Your task to perform on an android device: When is my next appointment? Image 0: 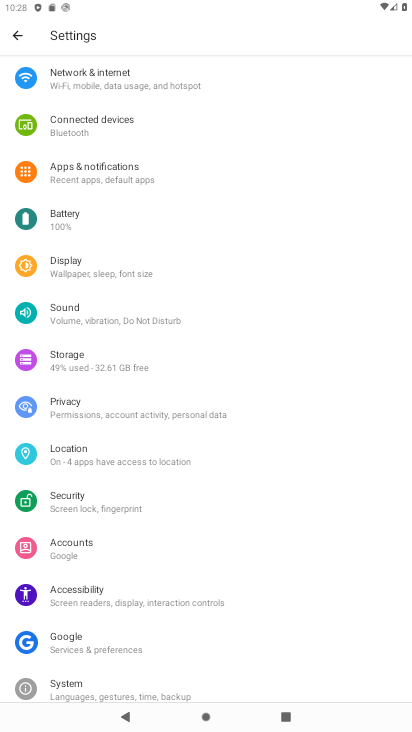
Step 0: click (13, 34)
Your task to perform on an android device: When is my next appointment? Image 1: 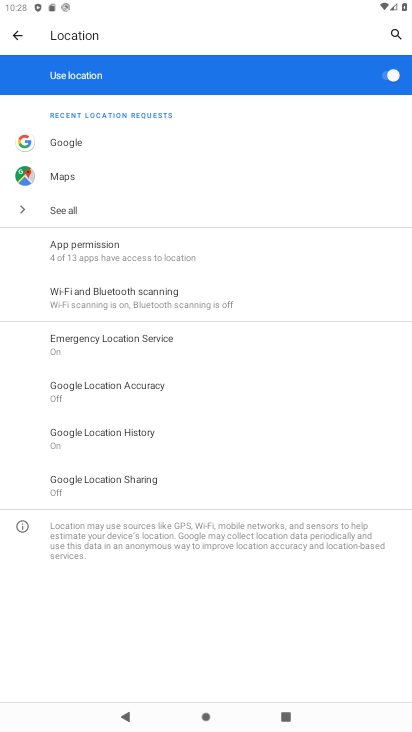
Step 1: click (24, 36)
Your task to perform on an android device: When is my next appointment? Image 2: 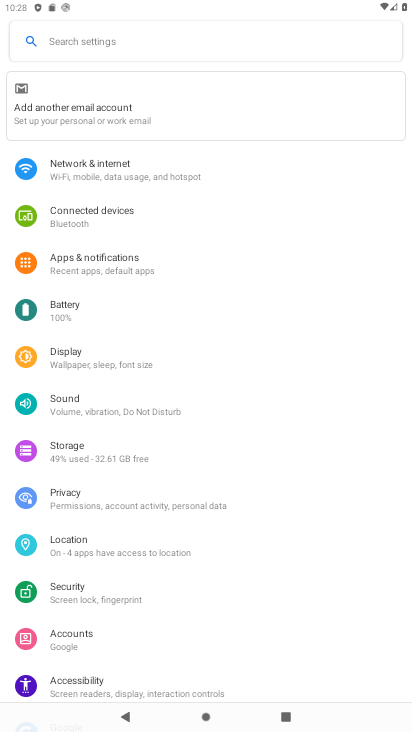
Step 2: press back button
Your task to perform on an android device: When is my next appointment? Image 3: 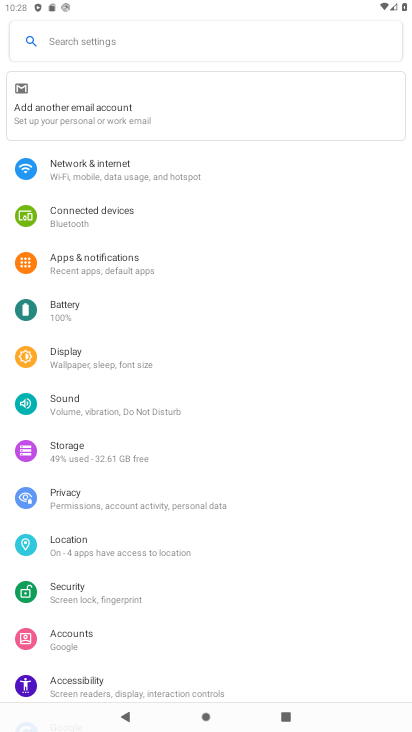
Step 3: press back button
Your task to perform on an android device: When is my next appointment? Image 4: 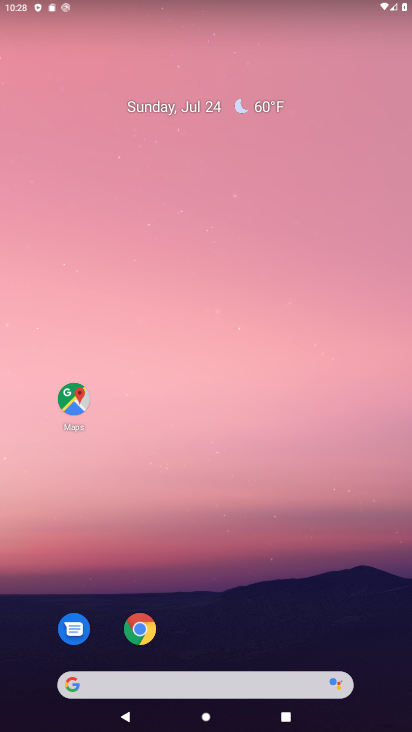
Step 4: drag from (224, 615) to (133, 149)
Your task to perform on an android device: When is my next appointment? Image 5: 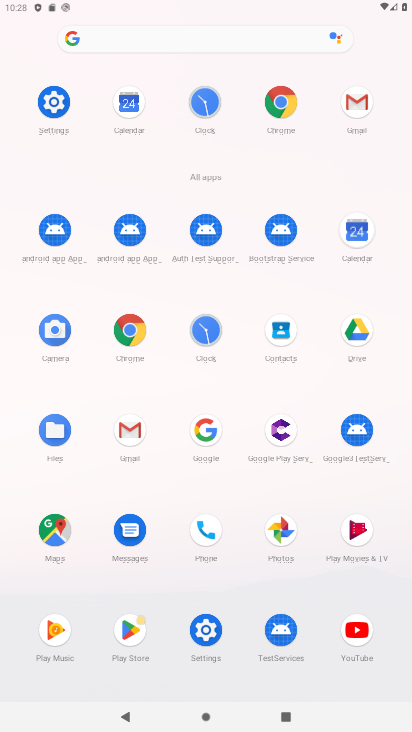
Step 5: click (342, 222)
Your task to perform on an android device: When is my next appointment? Image 6: 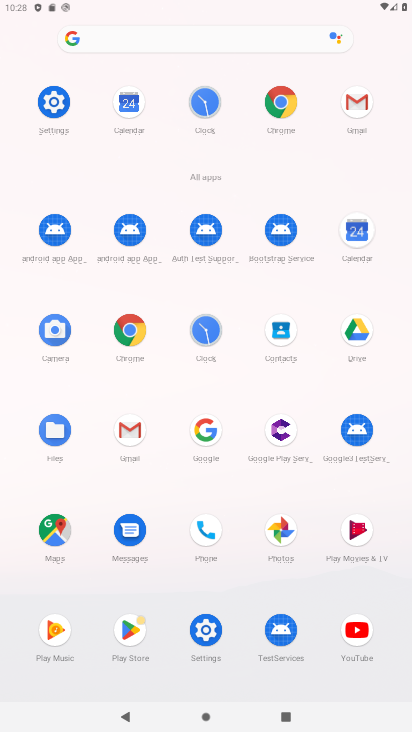
Step 6: click (348, 232)
Your task to perform on an android device: When is my next appointment? Image 7: 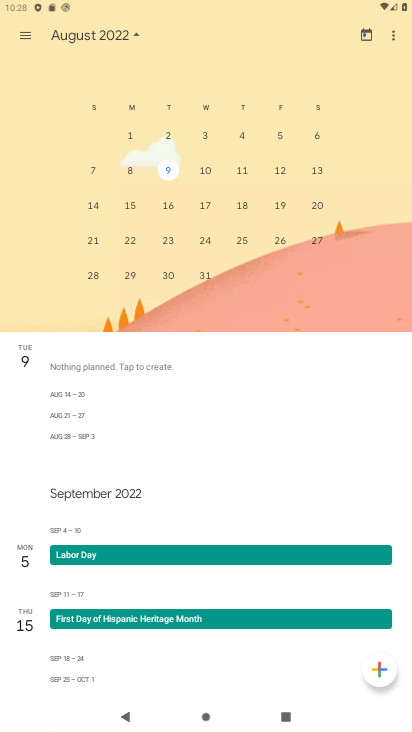
Step 7: drag from (382, 246) to (310, 214)
Your task to perform on an android device: When is my next appointment? Image 8: 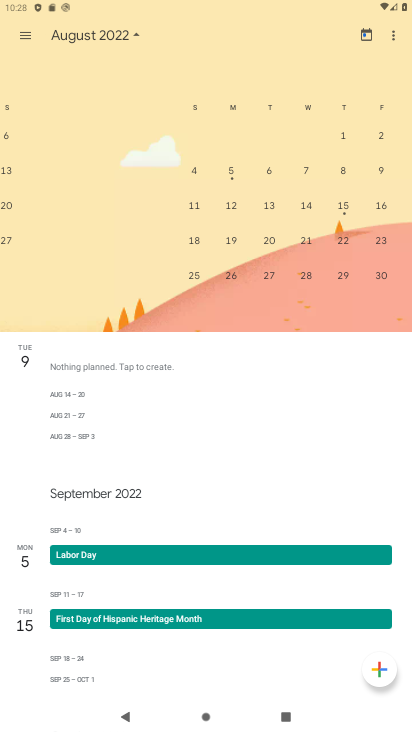
Step 8: drag from (28, 163) to (409, 184)
Your task to perform on an android device: When is my next appointment? Image 9: 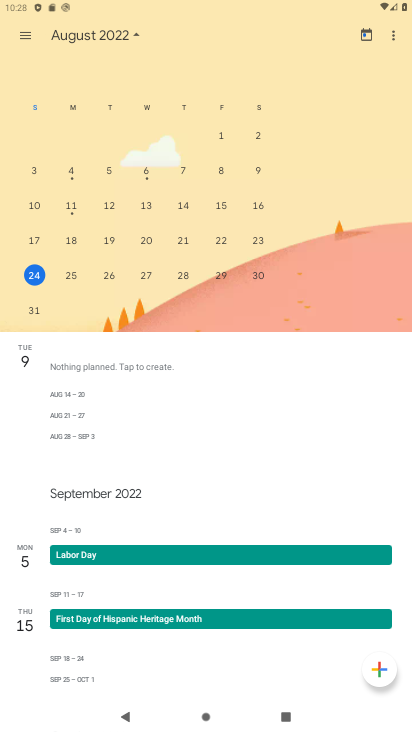
Step 9: drag from (39, 185) to (350, 206)
Your task to perform on an android device: When is my next appointment? Image 10: 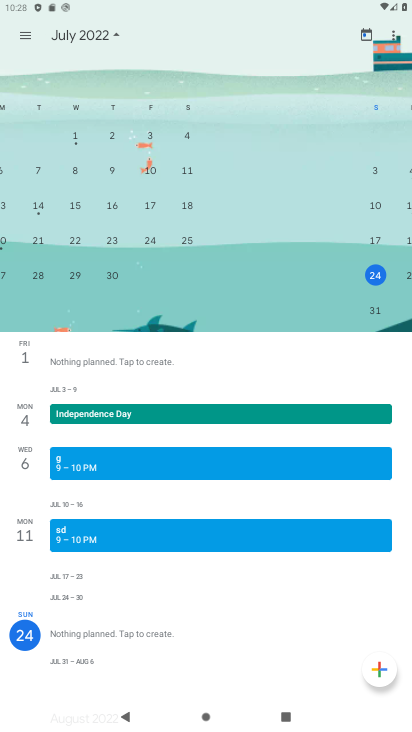
Step 10: drag from (29, 196) to (337, 203)
Your task to perform on an android device: When is my next appointment? Image 11: 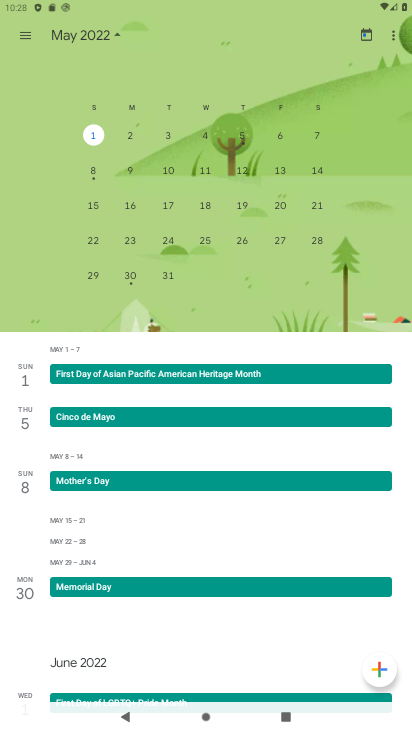
Step 11: drag from (320, 192) to (12, 150)
Your task to perform on an android device: When is my next appointment? Image 12: 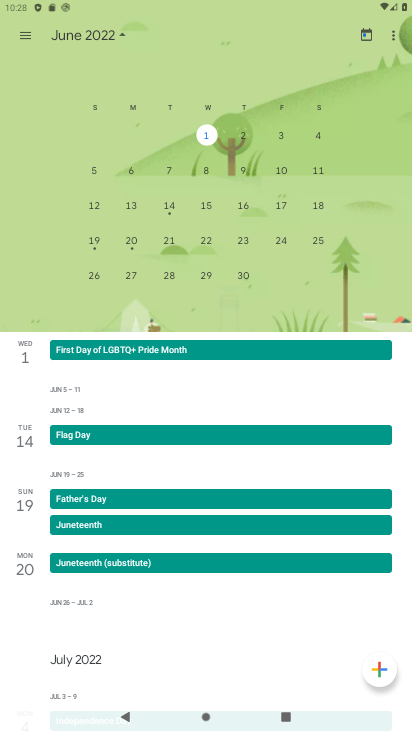
Step 12: click (190, 151)
Your task to perform on an android device: When is my next appointment? Image 13: 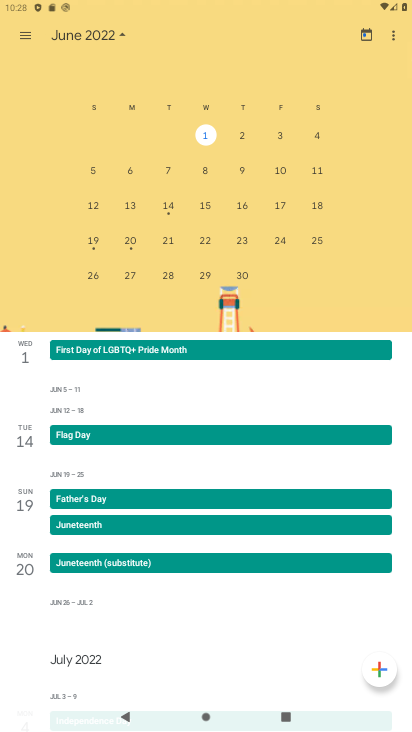
Step 13: drag from (161, 127) to (21, 124)
Your task to perform on an android device: When is my next appointment? Image 14: 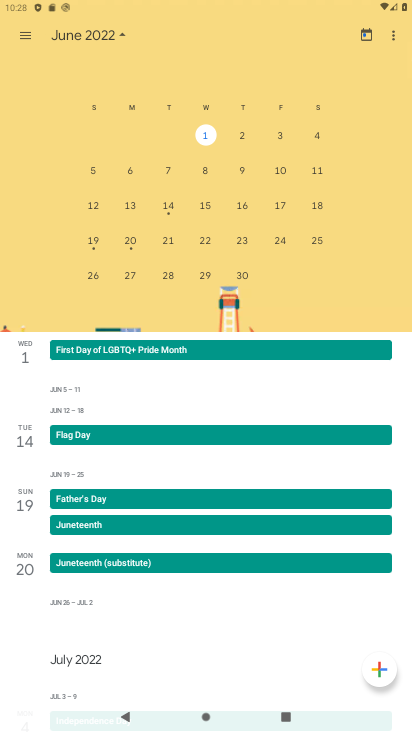
Step 14: drag from (295, 216) to (16, 160)
Your task to perform on an android device: When is my next appointment? Image 15: 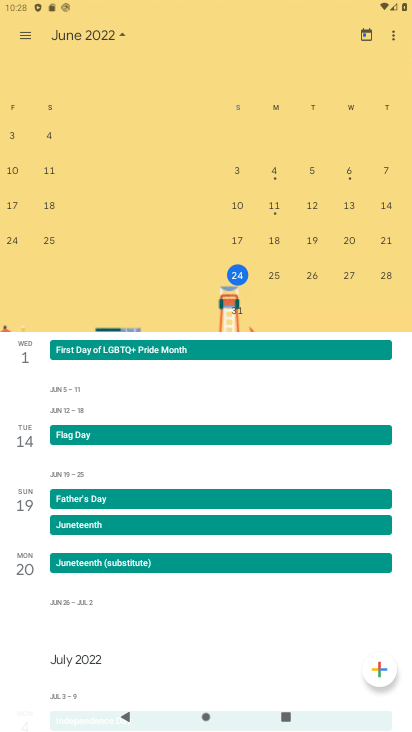
Step 15: drag from (218, 144) to (36, 160)
Your task to perform on an android device: When is my next appointment? Image 16: 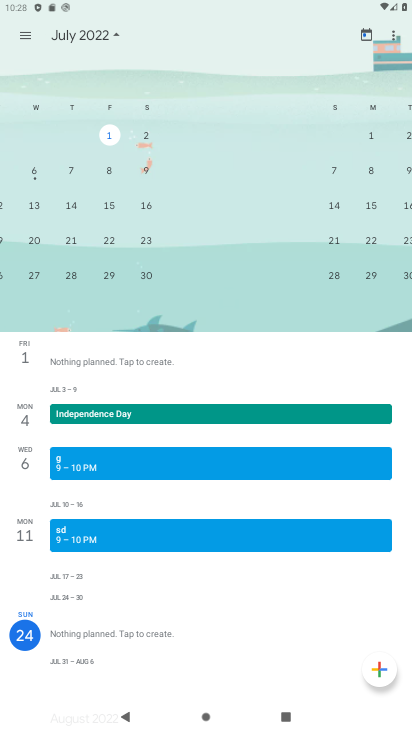
Step 16: drag from (279, 179) to (4, 180)
Your task to perform on an android device: When is my next appointment? Image 17: 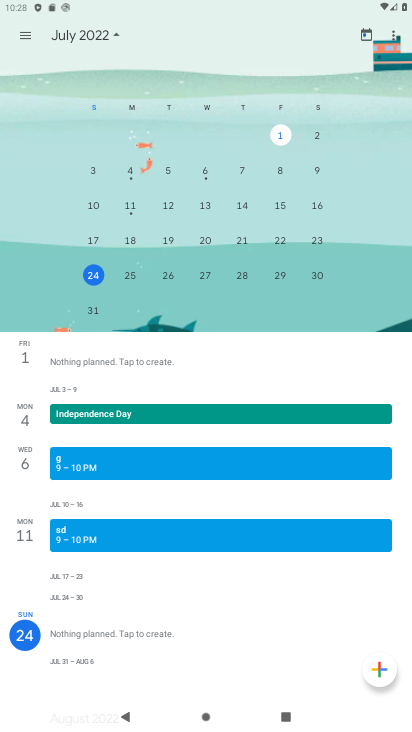
Step 17: drag from (251, 170) to (33, 175)
Your task to perform on an android device: When is my next appointment? Image 18: 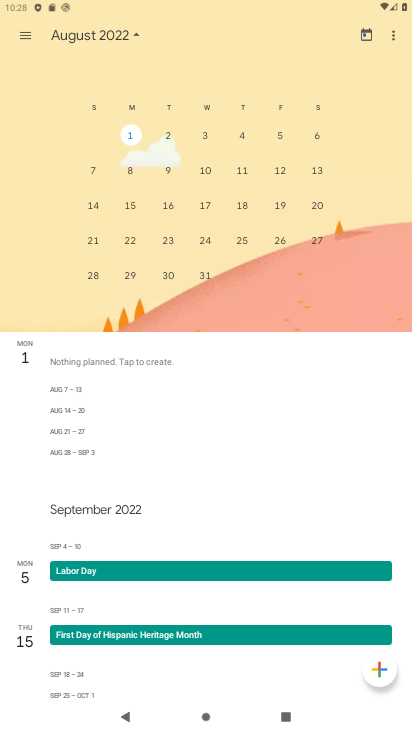
Step 18: drag from (99, 156) to (380, 182)
Your task to perform on an android device: When is my next appointment? Image 19: 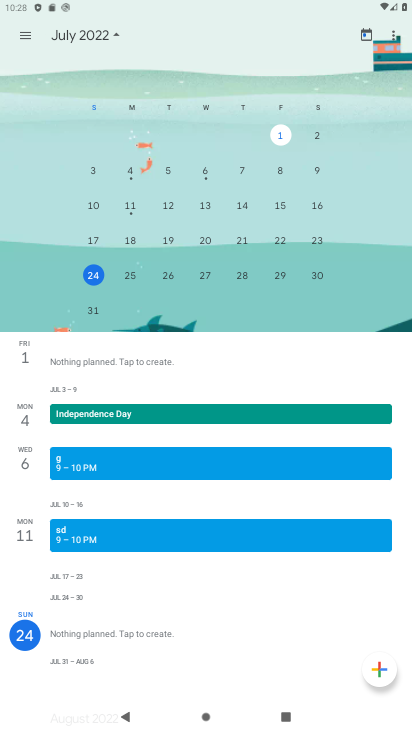
Step 19: click (130, 274)
Your task to perform on an android device: When is my next appointment? Image 20: 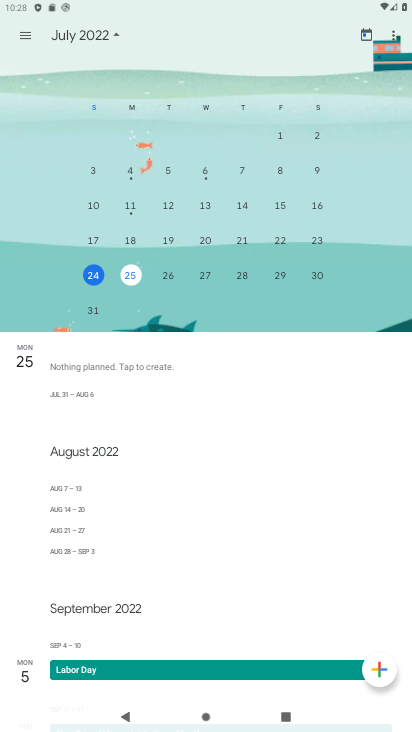
Step 20: click (130, 274)
Your task to perform on an android device: When is my next appointment? Image 21: 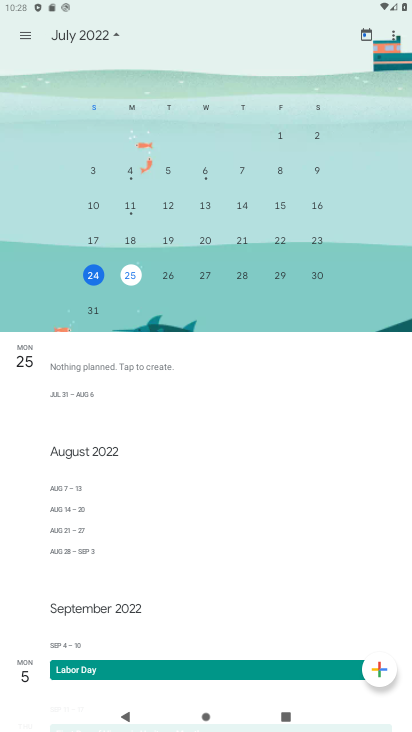
Step 21: click (130, 274)
Your task to perform on an android device: When is my next appointment? Image 22: 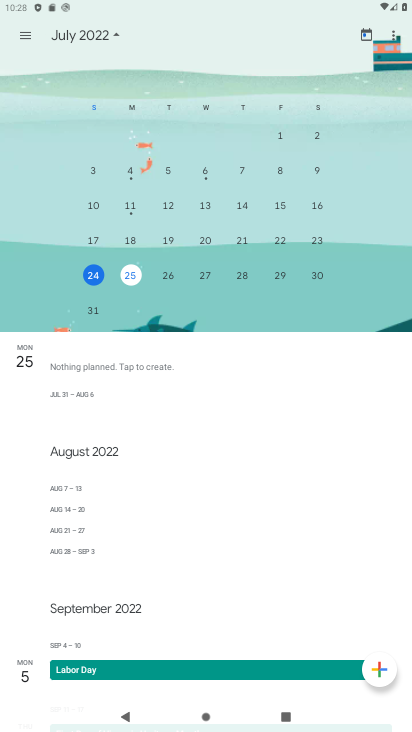
Step 22: task complete